Your task to perform on an android device: Do I have any events tomorrow? Image 0: 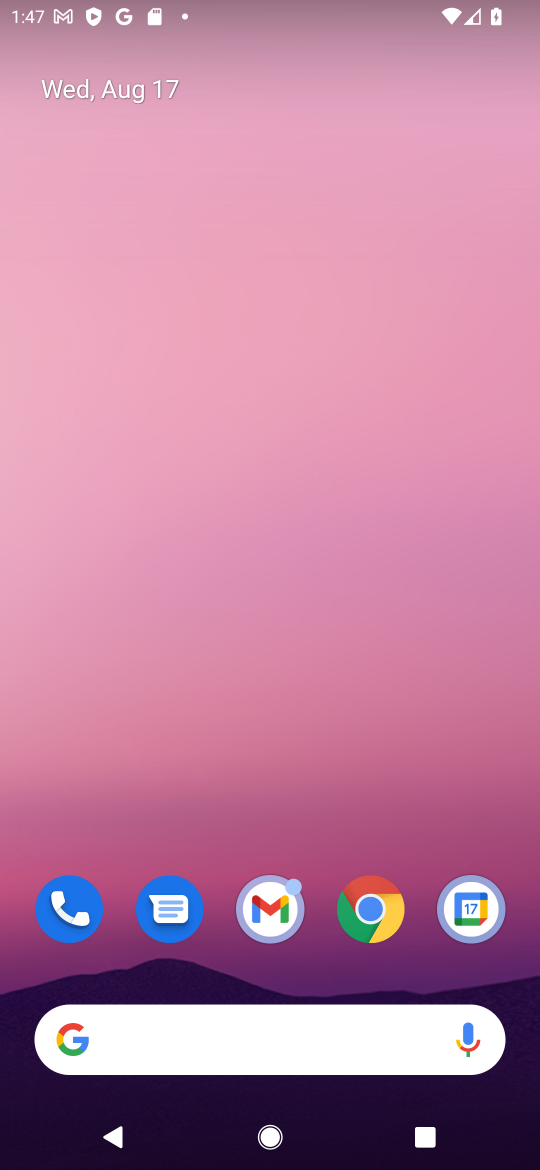
Step 0: click (180, 1051)
Your task to perform on an android device: Do I have any events tomorrow? Image 1: 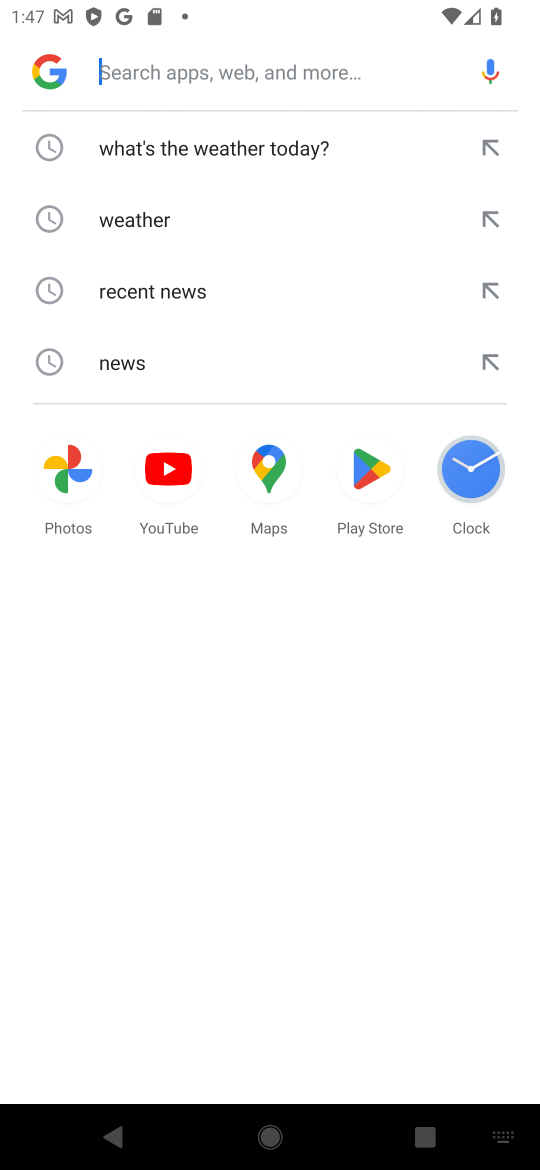
Step 1: type "Do I have any events tomorrow?"
Your task to perform on an android device: Do I have any events tomorrow? Image 2: 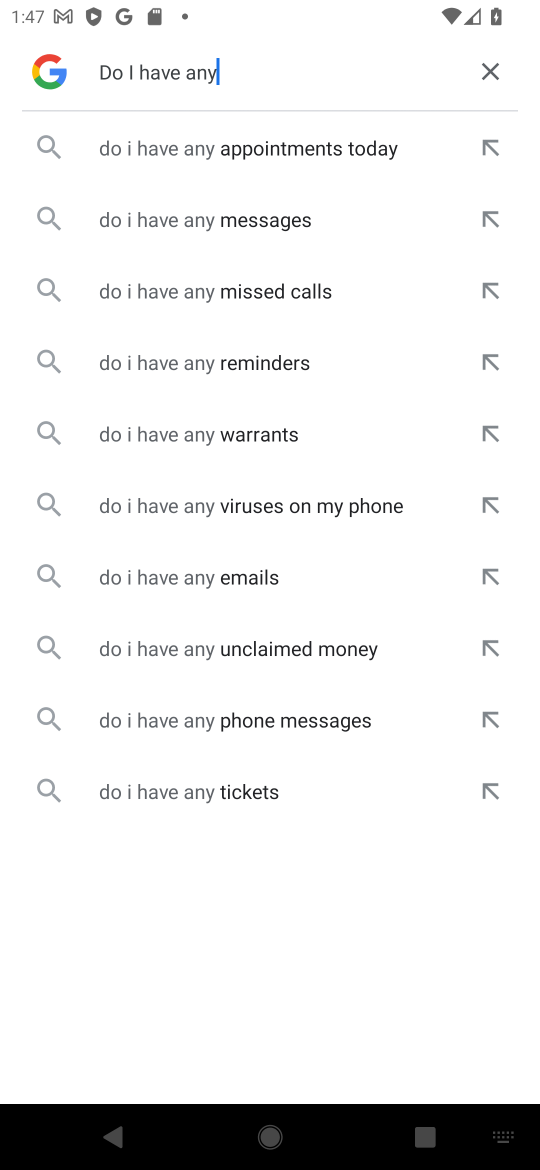
Step 2: type ""
Your task to perform on an android device: Do I have any events tomorrow? Image 3: 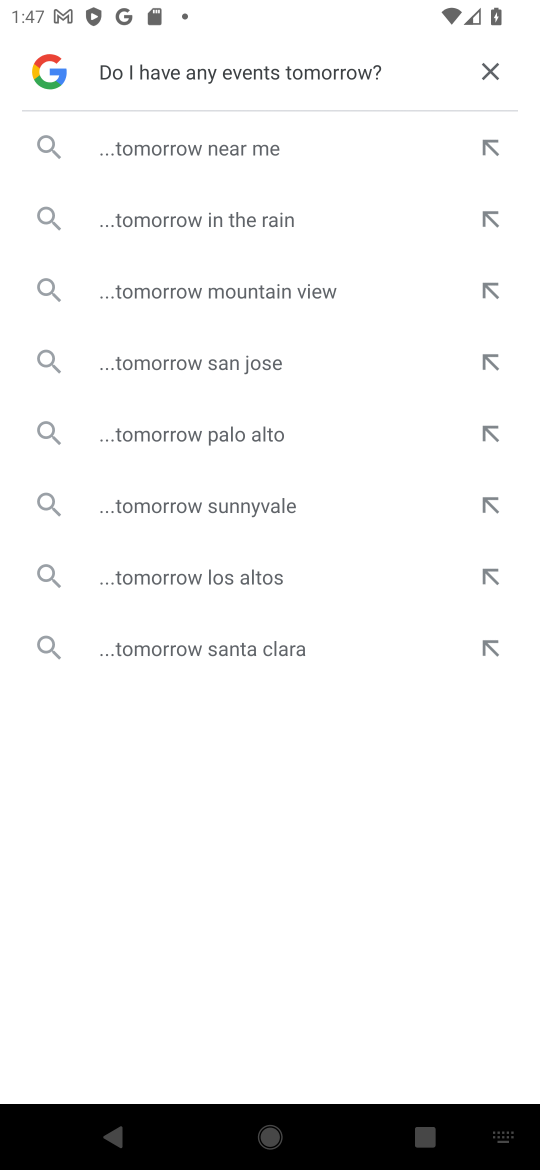
Step 3: press enter
Your task to perform on an android device: Do I have any events tomorrow? Image 4: 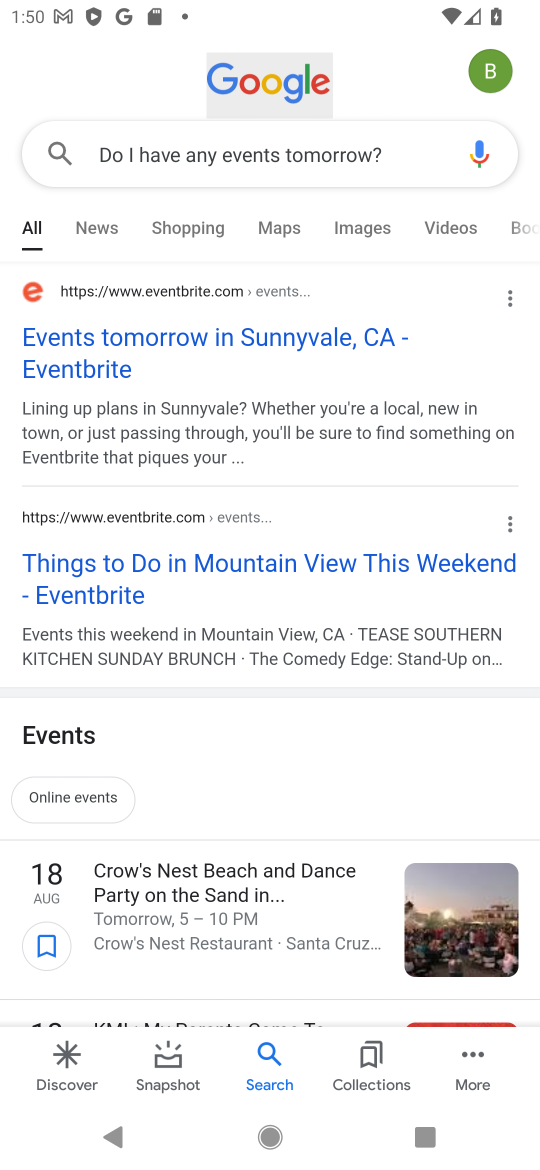
Step 4: task complete